Your task to perform on an android device: Go to ESPN.com Image 0: 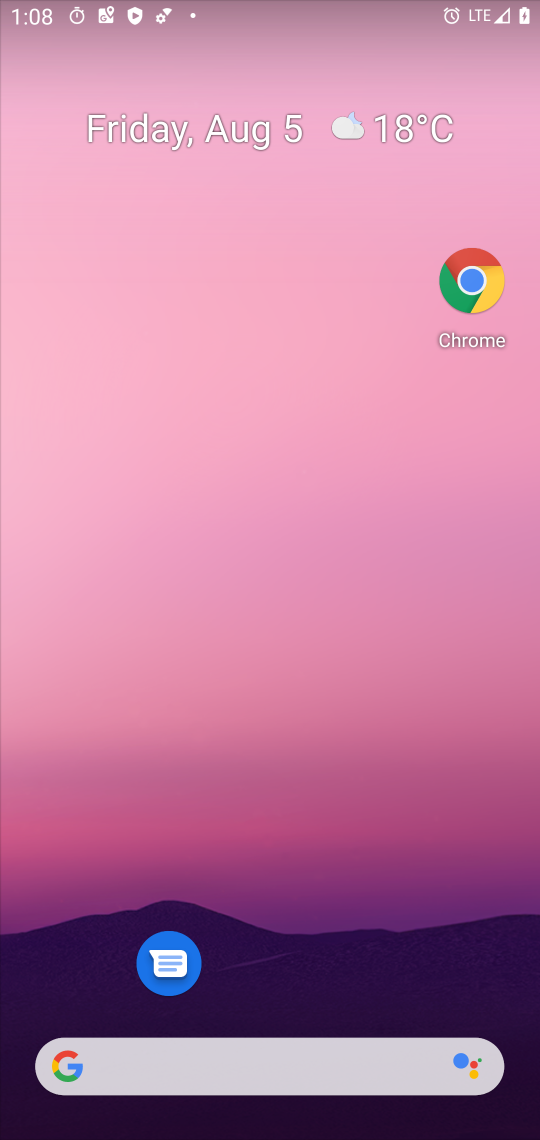
Step 0: drag from (302, 618) to (396, 30)
Your task to perform on an android device: Go to ESPN.com Image 1: 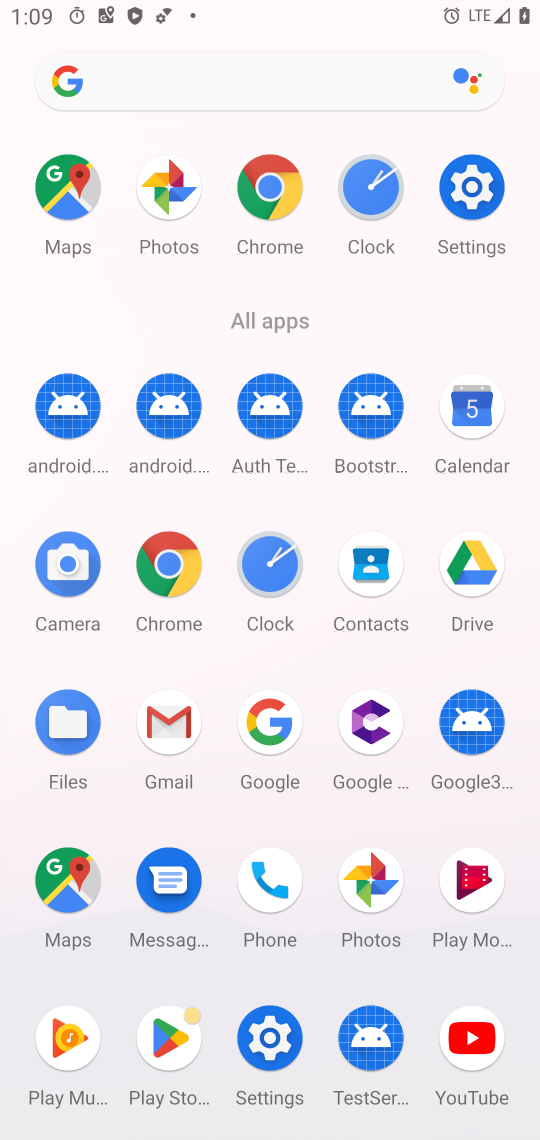
Step 1: click (251, 150)
Your task to perform on an android device: Go to ESPN.com Image 2: 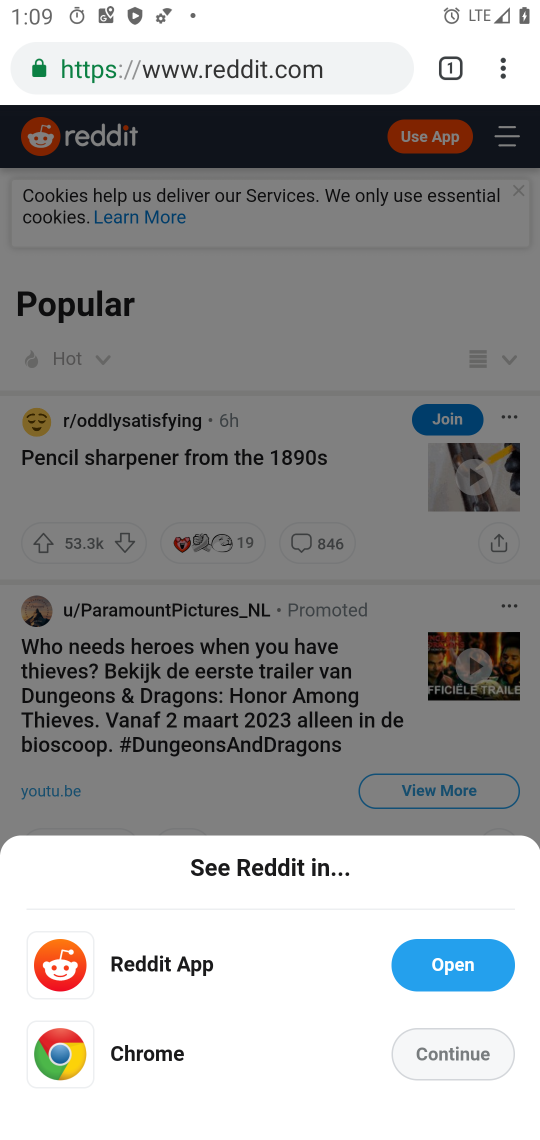
Step 2: click (383, 65)
Your task to perform on an android device: Go to ESPN.com Image 3: 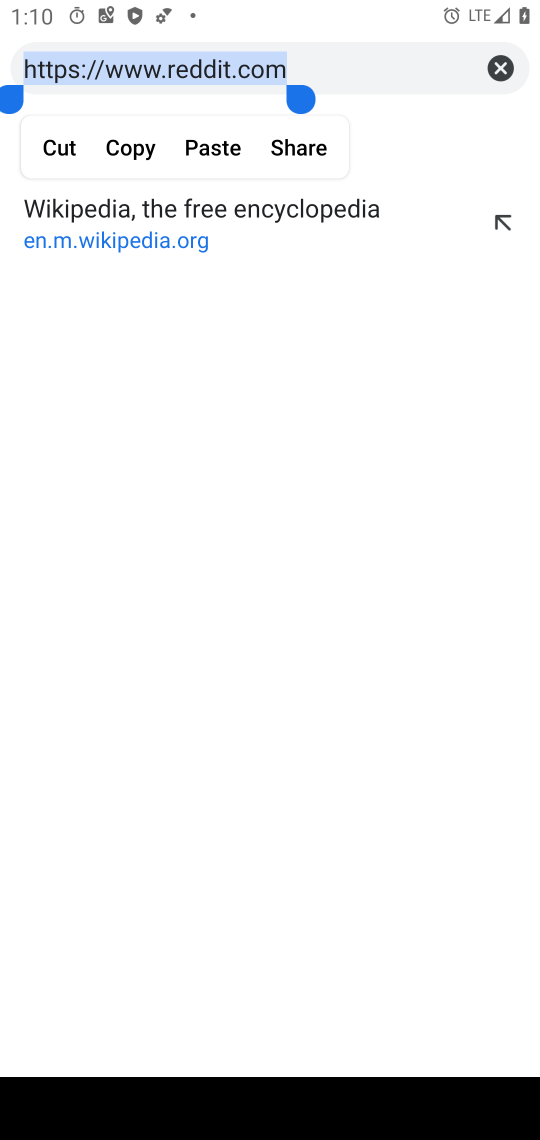
Step 3: click (494, 63)
Your task to perform on an android device: Go to ESPN.com Image 4: 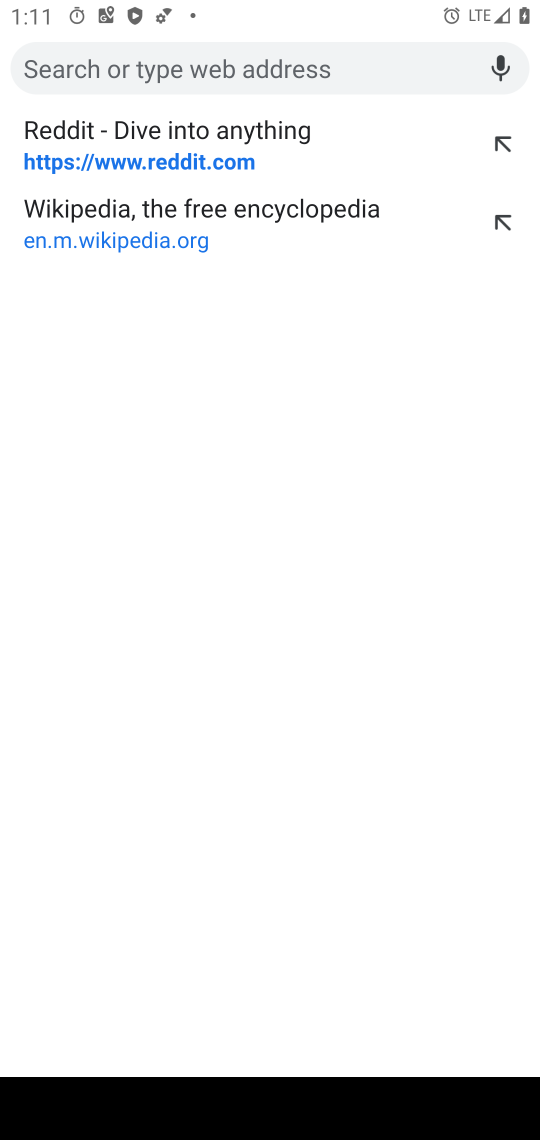
Step 4: type "ESPN.com"
Your task to perform on an android device: Go to ESPN.com Image 5: 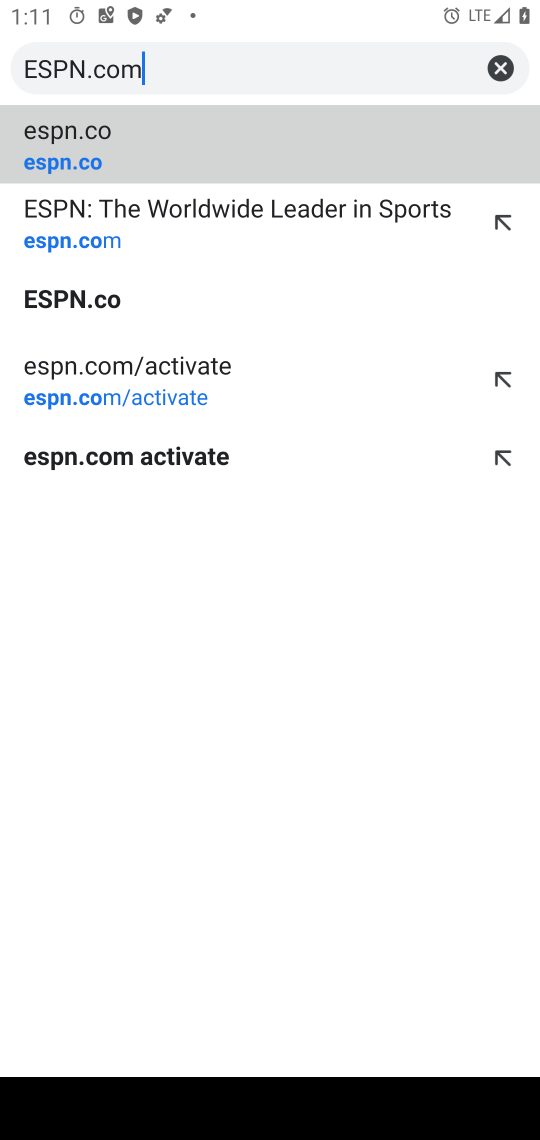
Step 5: press enter
Your task to perform on an android device: Go to ESPN.com Image 6: 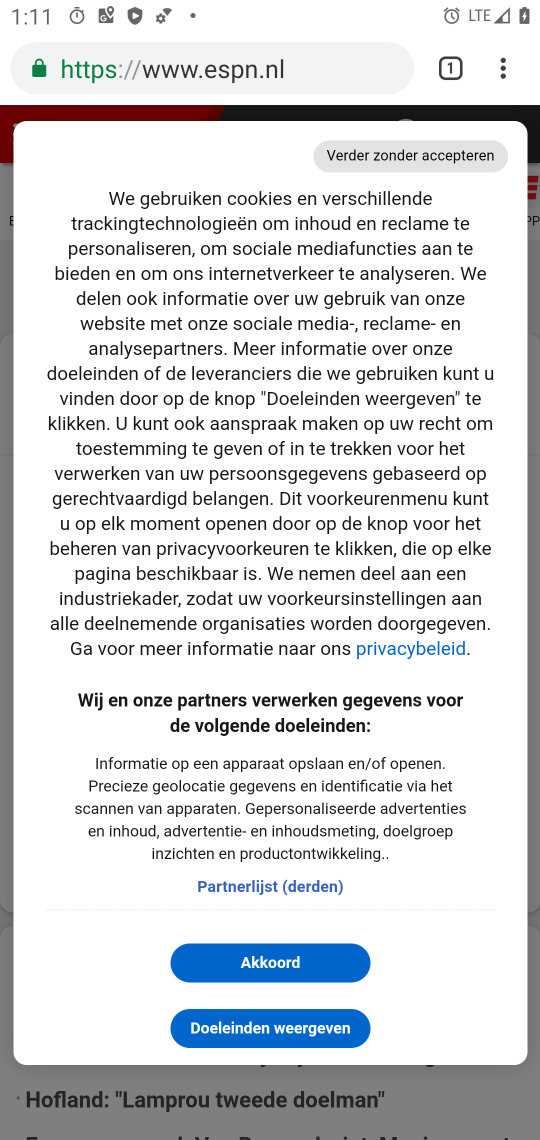
Step 6: task complete